Your task to perform on an android device: set the stopwatch Image 0: 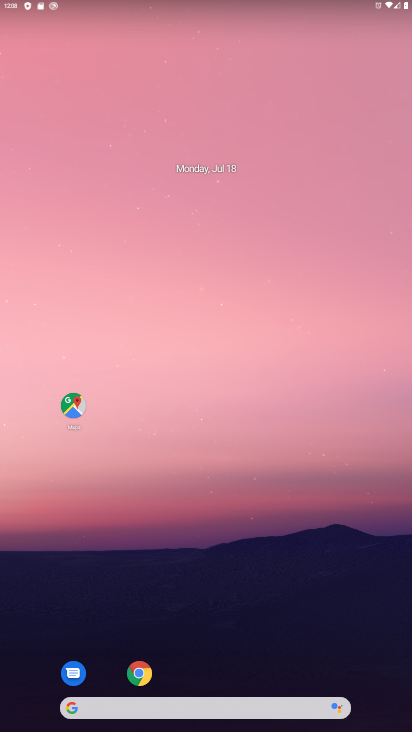
Step 0: drag from (247, 681) to (221, 313)
Your task to perform on an android device: set the stopwatch Image 1: 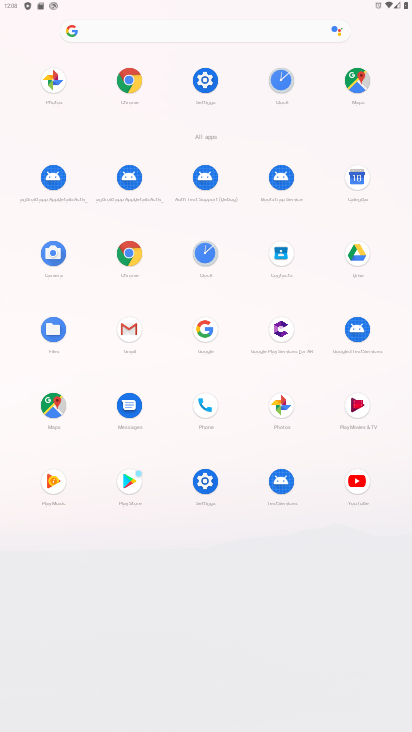
Step 1: click (291, 77)
Your task to perform on an android device: set the stopwatch Image 2: 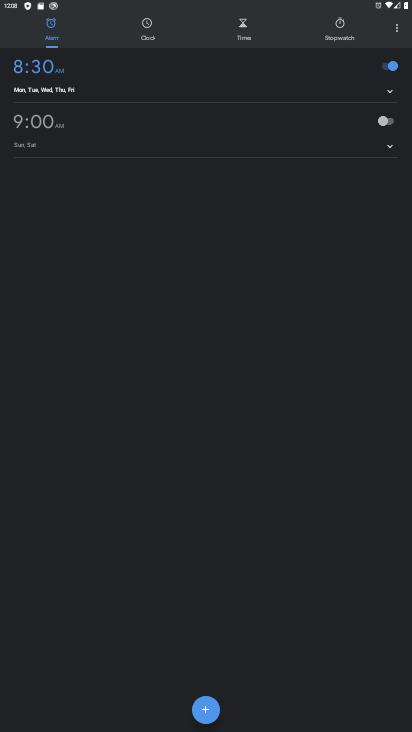
Step 2: click (320, 32)
Your task to perform on an android device: set the stopwatch Image 3: 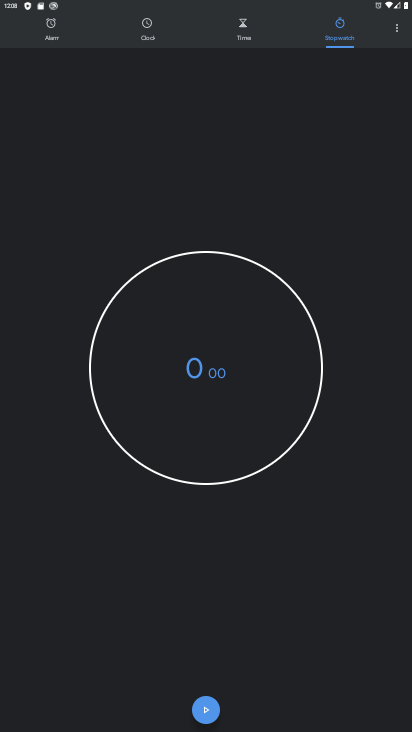
Step 3: task complete